Your task to perform on an android device: open chrome privacy settings Image 0: 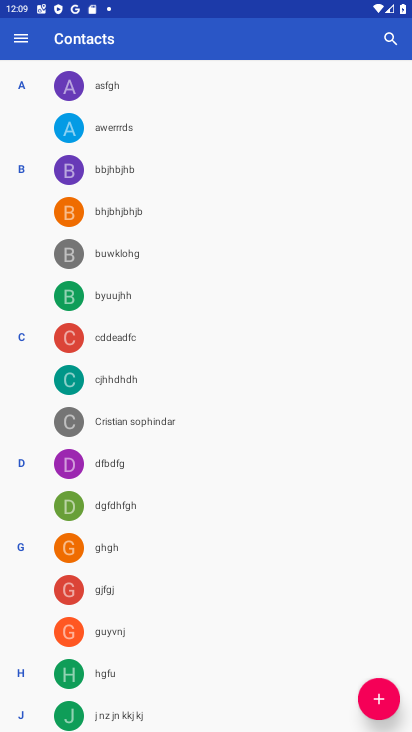
Step 0: press home button
Your task to perform on an android device: open chrome privacy settings Image 1: 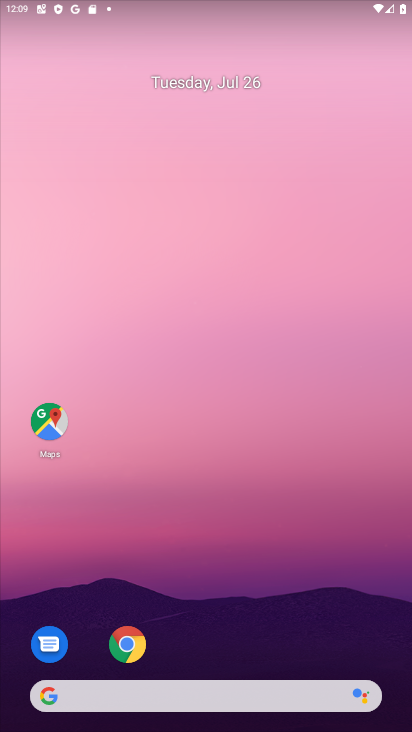
Step 1: click (124, 646)
Your task to perform on an android device: open chrome privacy settings Image 2: 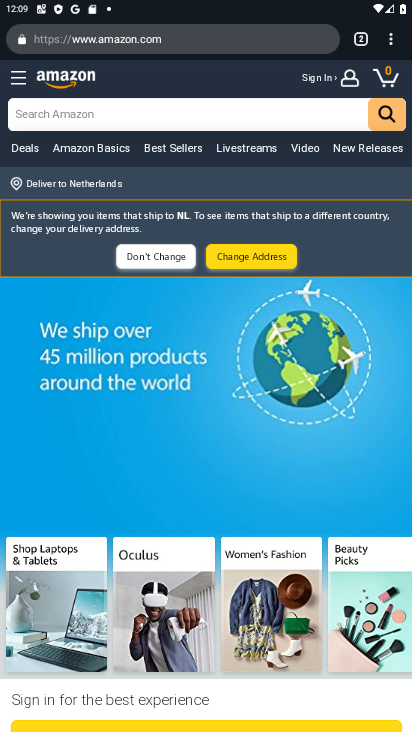
Step 2: click (395, 39)
Your task to perform on an android device: open chrome privacy settings Image 3: 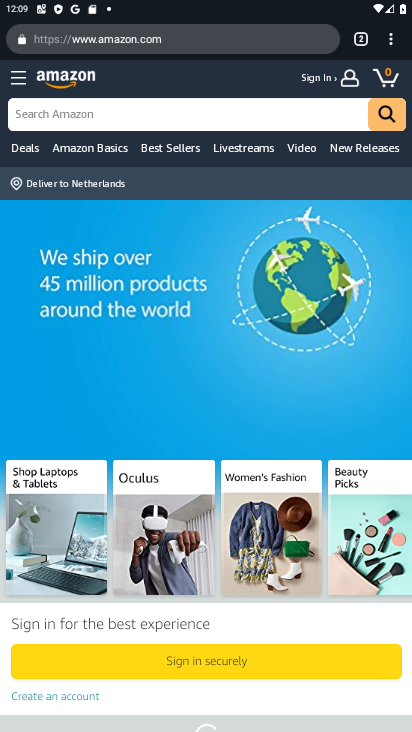
Step 3: drag from (395, 39) to (258, 473)
Your task to perform on an android device: open chrome privacy settings Image 4: 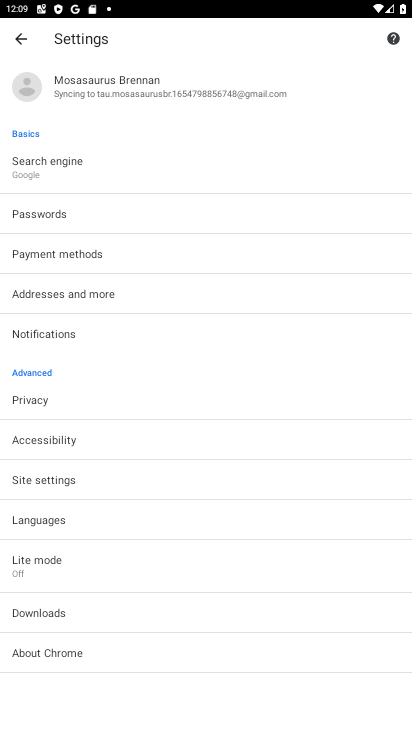
Step 4: click (44, 397)
Your task to perform on an android device: open chrome privacy settings Image 5: 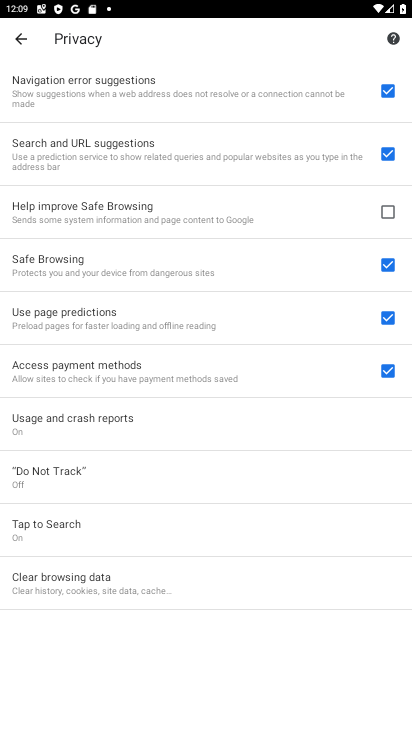
Step 5: task complete